Your task to perform on an android device: open chrome and create a bookmark for the current page Image 0: 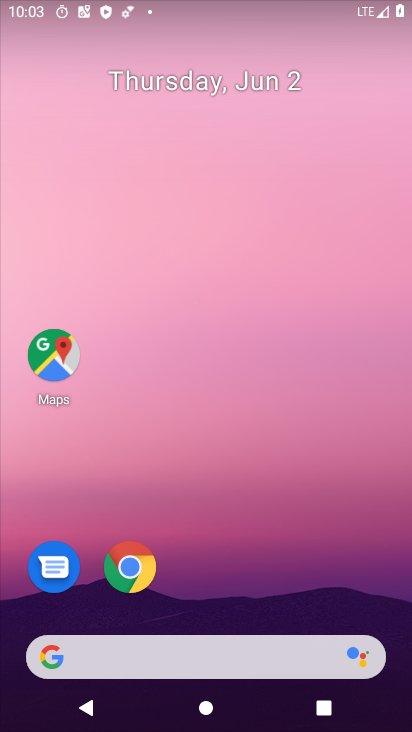
Step 0: drag from (341, 597) to (325, 68)
Your task to perform on an android device: open chrome and create a bookmark for the current page Image 1: 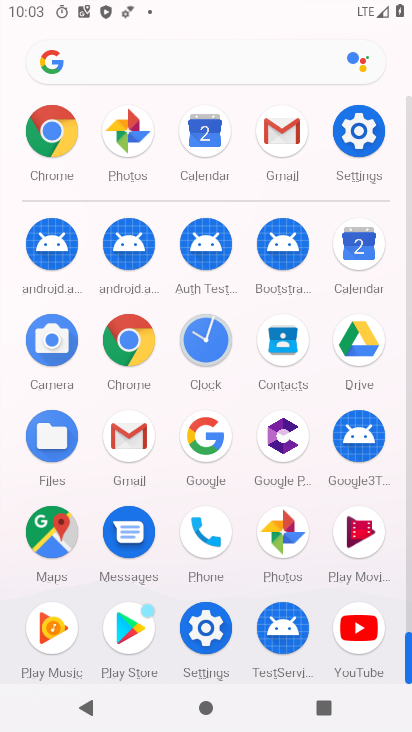
Step 1: click (142, 337)
Your task to perform on an android device: open chrome and create a bookmark for the current page Image 2: 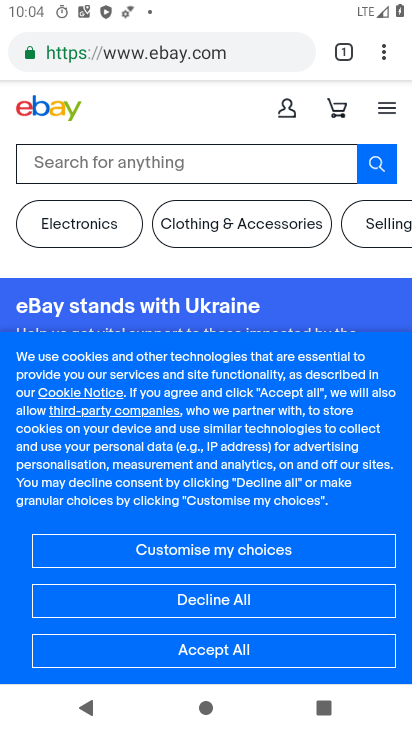
Step 2: task complete